Your task to perform on an android device: turn off improve location accuracy Image 0: 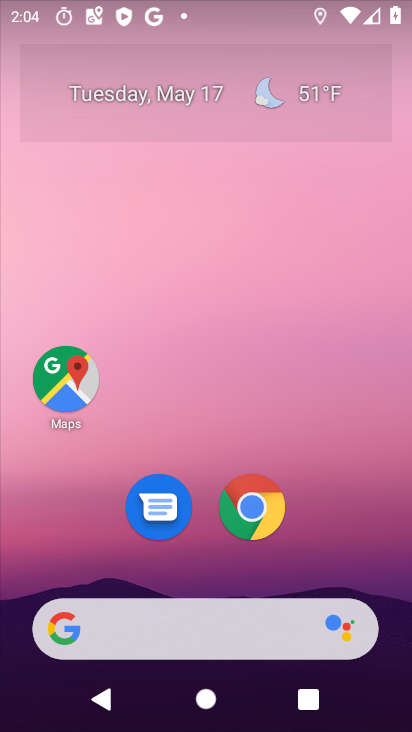
Step 0: drag from (202, 568) to (205, 86)
Your task to perform on an android device: turn off improve location accuracy Image 1: 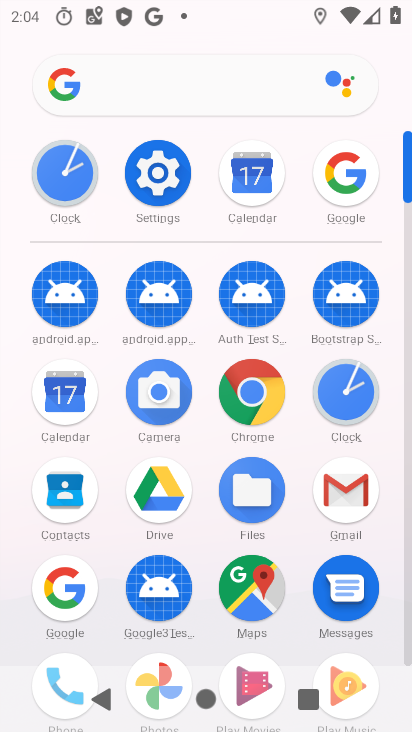
Step 1: click (156, 173)
Your task to perform on an android device: turn off improve location accuracy Image 2: 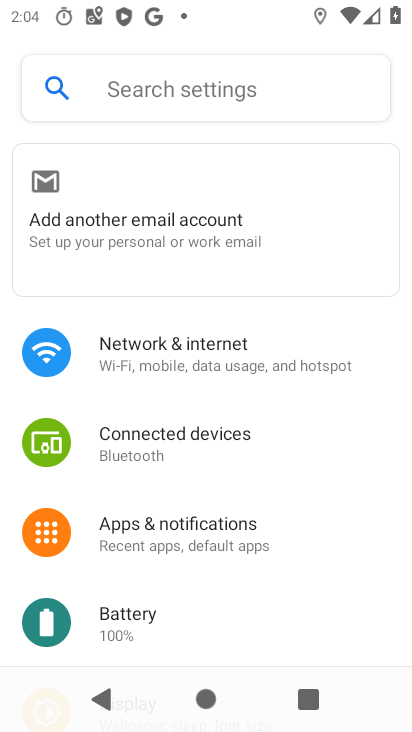
Step 2: drag from (196, 565) to (199, 150)
Your task to perform on an android device: turn off improve location accuracy Image 3: 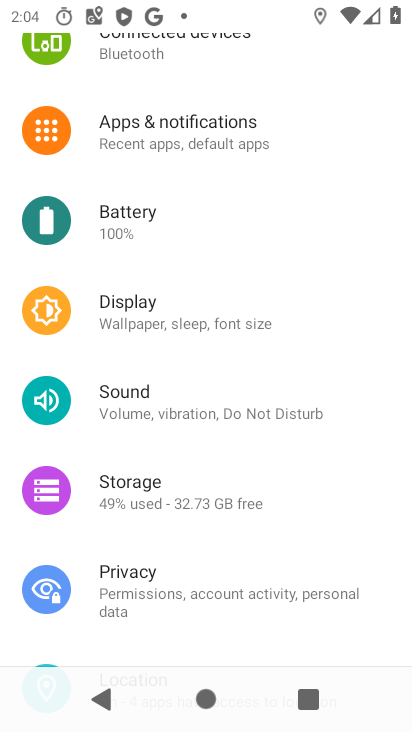
Step 3: drag from (223, 558) to (219, 289)
Your task to perform on an android device: turn off improve location accuracy Image 4: 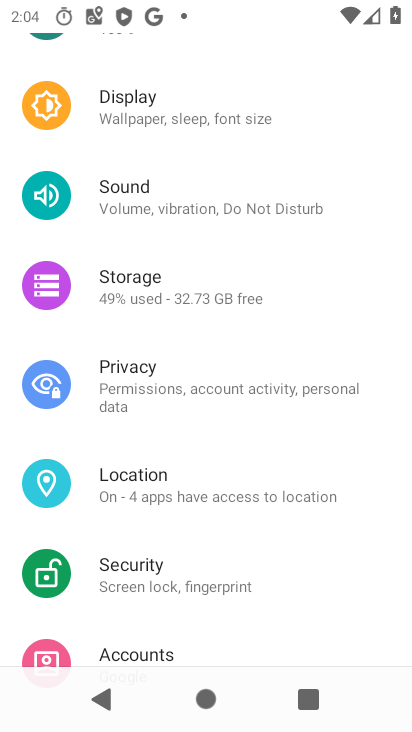
Step 4: click (165, 482)
Your task to perform on an android device: turn off improve location accuracy Image 5: 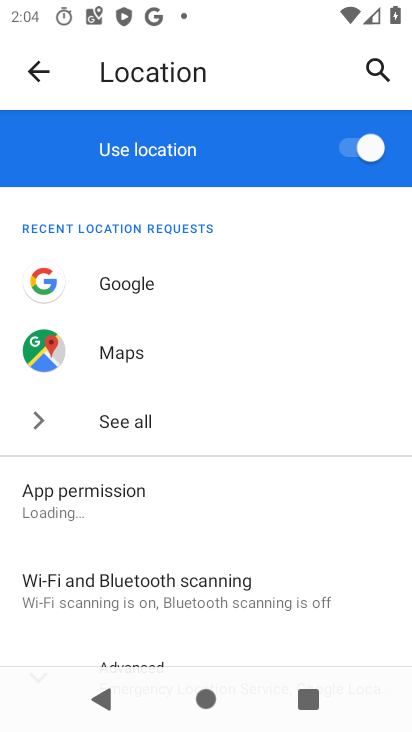
Step 5: drag from (188, 464) to (188, 242)
Your task to perform on an android device: turn off improve location accuracy Image 6: 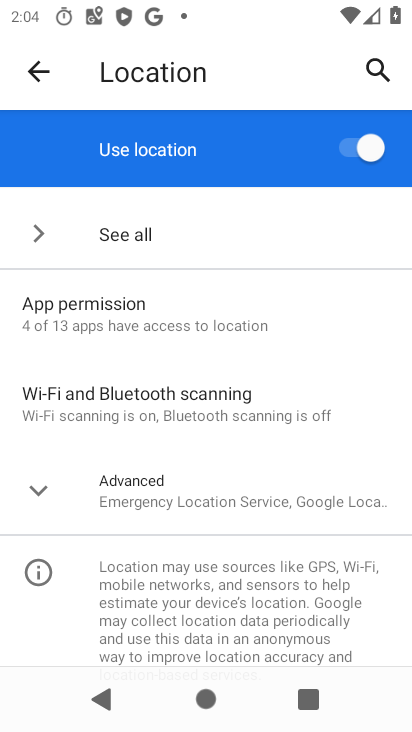
Step 6: click (157, 475)
Your task to perform on an android device: turn off improve location accuracy Image 7: 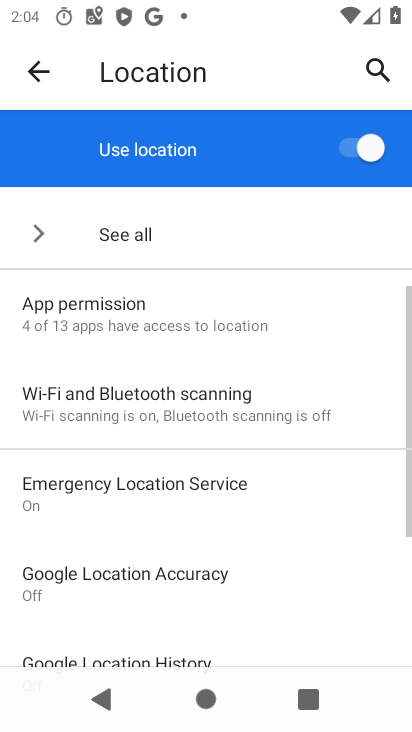
Step 7: click (184, 582)
Your task to perform on an android device: turn off improve location accuracy Image 8: 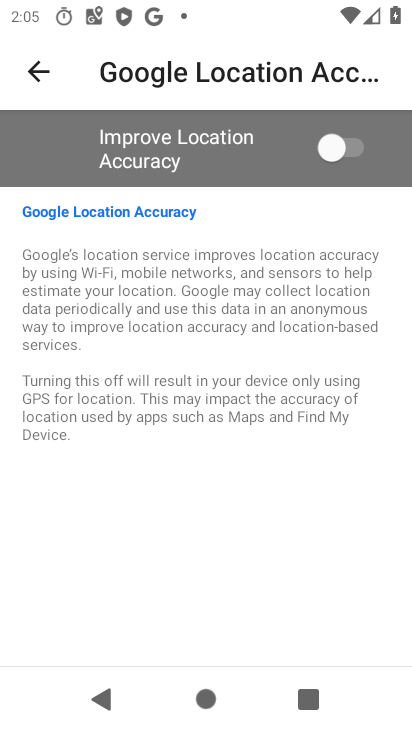
Step 8: task complete